Your task to perform on an android device: remove spam from my inbox in the gmail app Image 0: 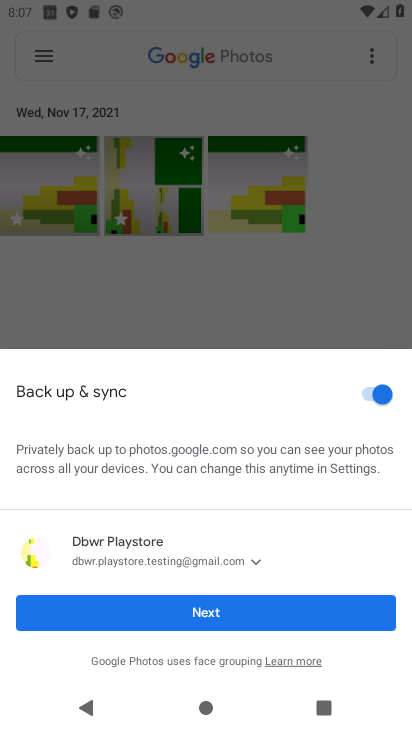
Step 0: press home button
Your task to perform on an android device: remove spam from my inbox in the gmail app Image 1: 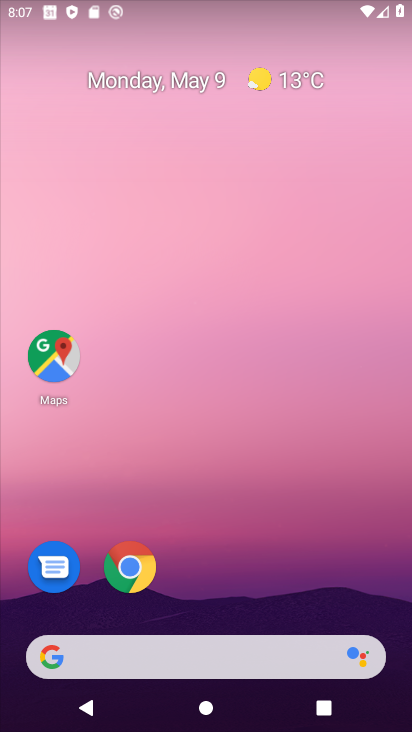
Step 1: drag from (263, 446) to (181, 27)
Your task to perform on an android device: remove spam from my inbox in the gmail app Image 2: 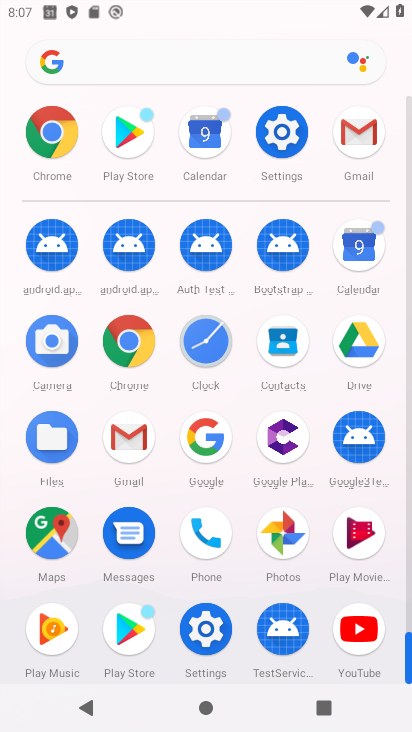
Step 2: click (359, 127)
Your task to perform on an android device: remove spam from my inbox in the gmail app Image 3: 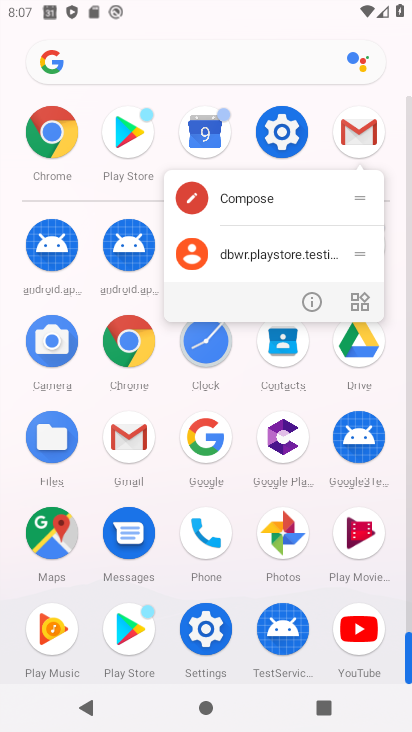
Step 3: click (359, 127)
Your task to perform on an android device: remove spam from my inbox in the gmail app Image 4: 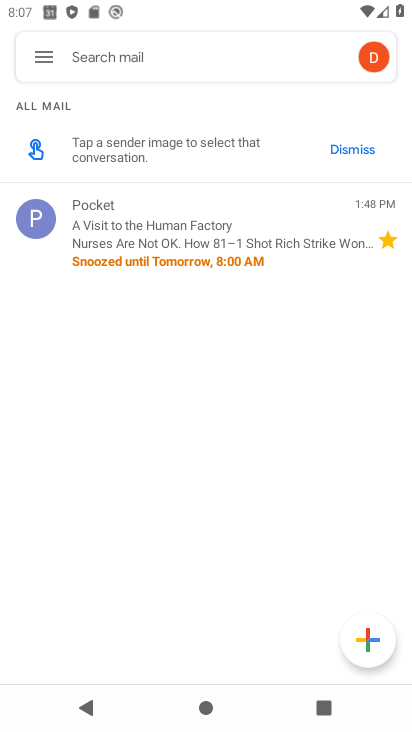
Step 4: click (47, 57)
Your task to perform on an android device: remove spam from my inbox in the gmail app Image 5: 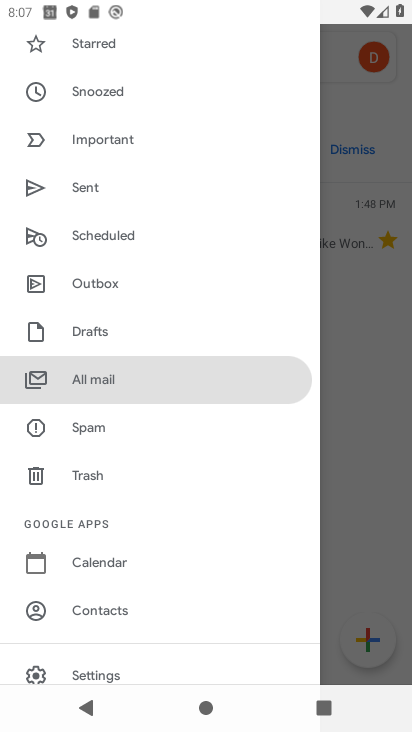
Step 5: click (136, 432)
Your task to perform on an android device: remove spam from my inbox in the gmail app Image 6: 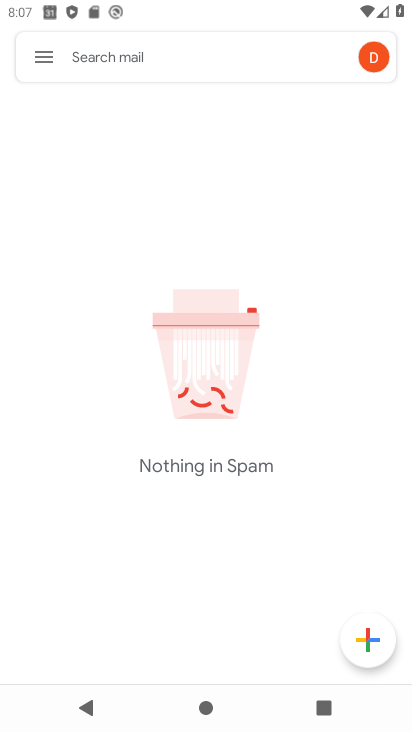
Step 6: task complete